Your task to perform on an android device: What's on my calendar tomorrow? Image 0: 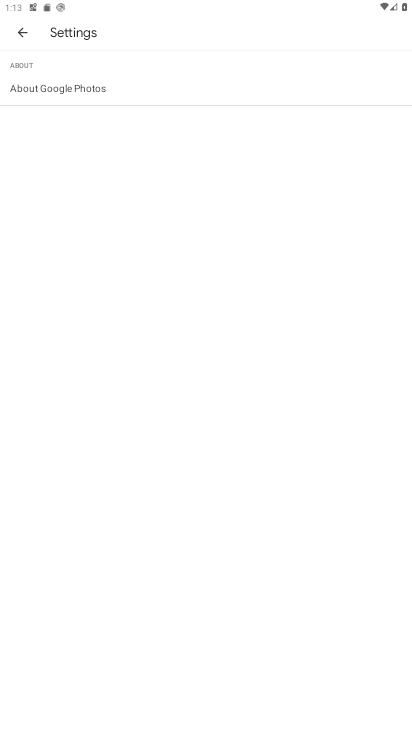
Step 0: press home button
Your task to perform on an android device: What's on my calendar tomorrow? Image 1: 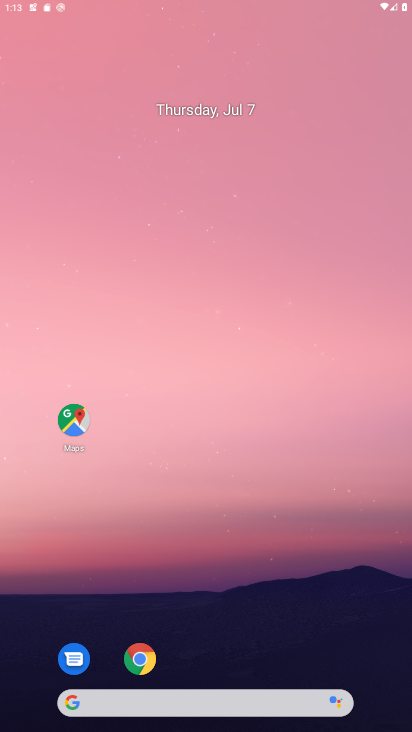
Step 1: drag from (265, 642) to (369, 269)
Your task to perform on an android device: What's on my calendar tomorrow? Image 2: 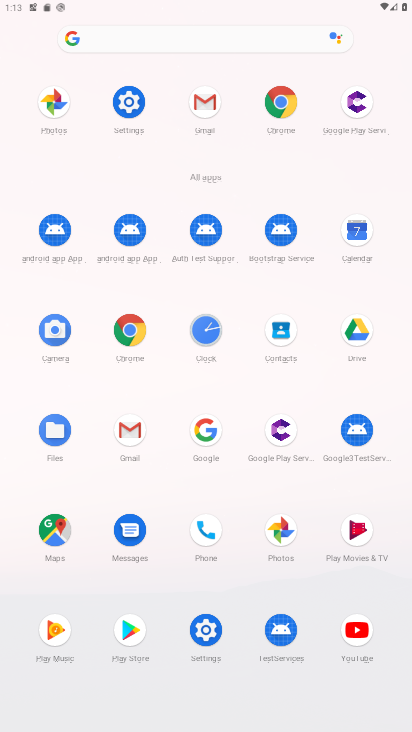
Step 2: click (363, 239)
Your task to perform on an android device: What's on my calendar tomorrow? Image 3: 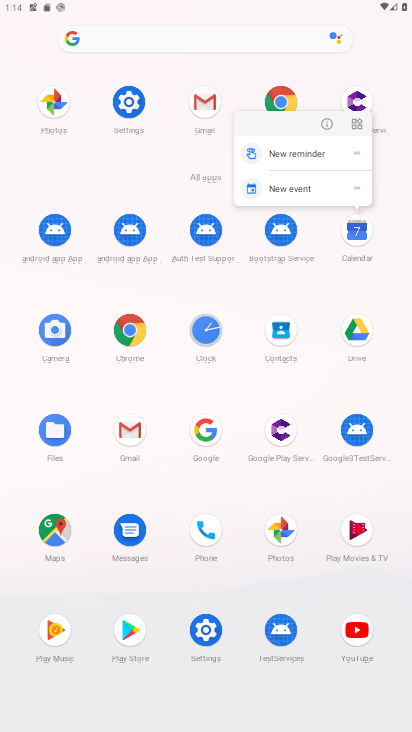
Step 3: click (324, 126)
Your task to perform on an android device: What's on my calendar tomorrow? Image 4: 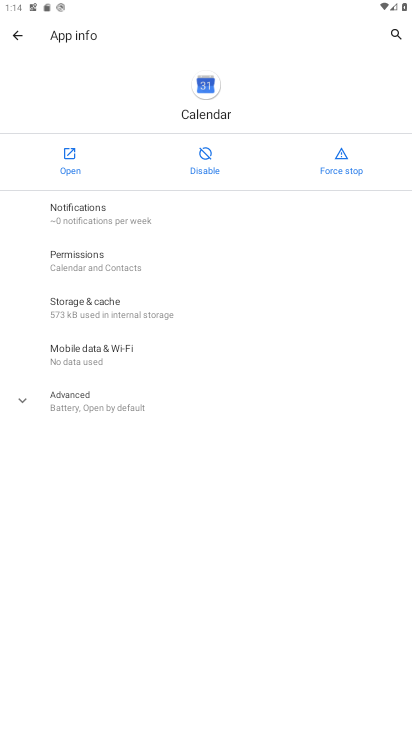
Step 4: click (54, 163)
Your task to perform on an android device: What's on my calendar tomorrow? Image 5: 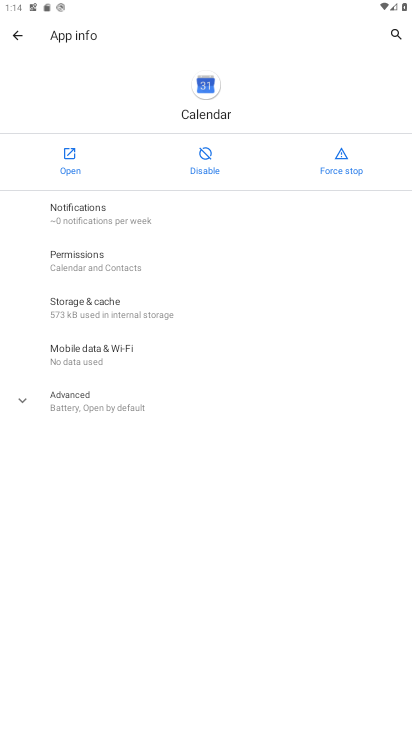
Step 5: click (54, 163)
Your task to perform on an android device: What's on my calendar tomorrow? Image 6: 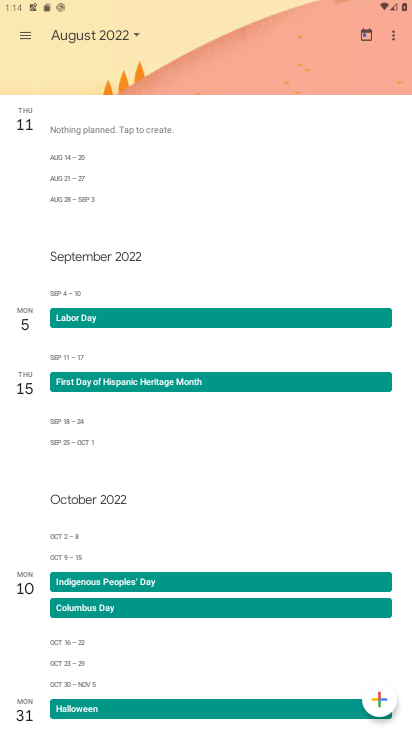
Step 6: drag from (186, 551) to (229, 173)
Your task to perform on an android device: What's on my calendar tomorrow? Image 7: 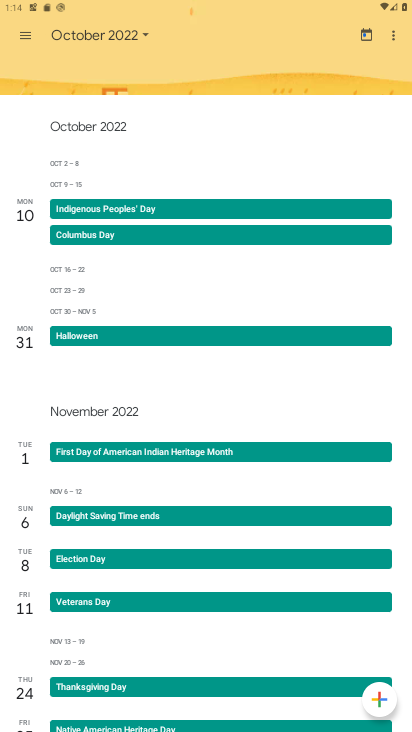
Step 7: drag from (138, 185) to (278, 423)
Your task to perform on an android device: What's on my calendar tomorrow? Image 8: 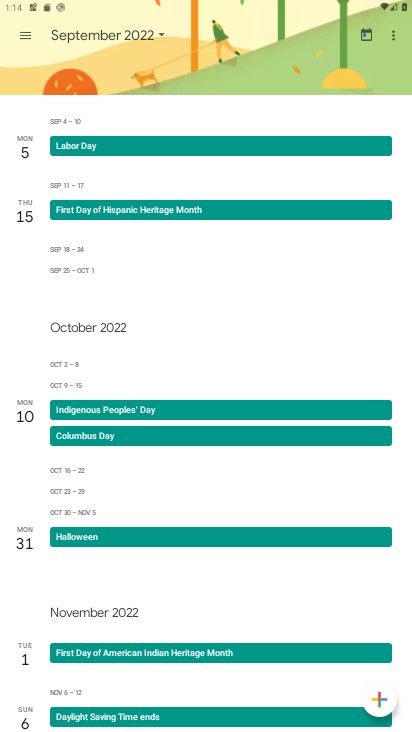
Step 8: click (125, 38)
Your task to perform on an android device: What's on my calendar tomorrow? Image 9: 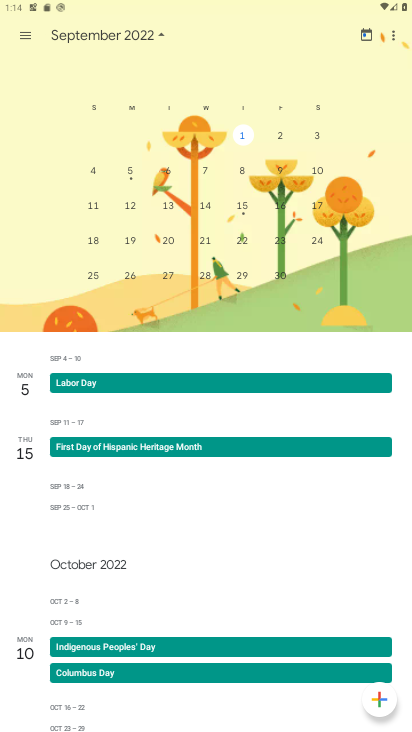
Step 9: drag from (80, 256) to (365, 219)
Your task to perform on an android device: What's on my calendar tomorrow? Image 10: 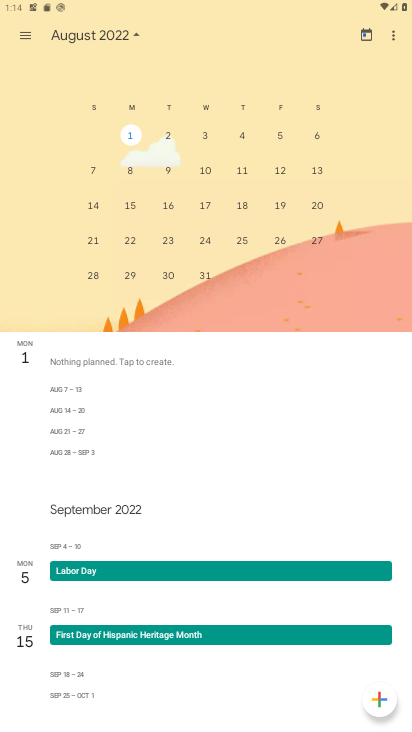
Step 10: drag from (64, 224) to (409, 181)
Your task to perform on an android device: What's on my calendar tomorrow? Image 11: 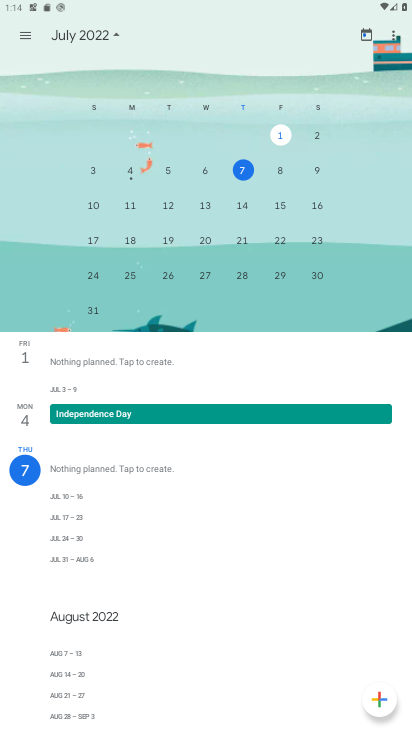
Step 11: click (275, 170)
Your task to perform on an android device: What's on my calendar tomorrow? Image 12: 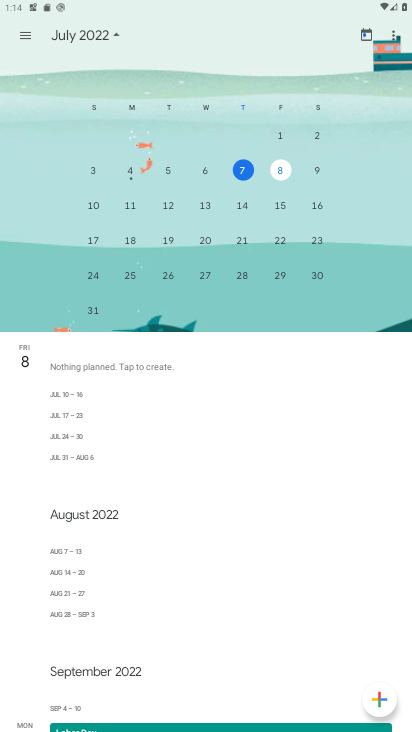
Step 12: task complete